Your task to perform on an android device: turn on notifications settings in the gmail app Image 0: 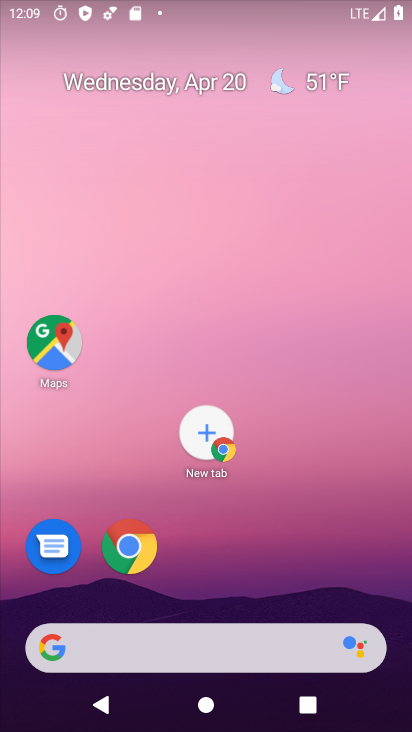
Step 0: drag from (217, 592) to (204, 41)
Your task to perform on an android device: turn on notifications settings in the gmail app Image 1: 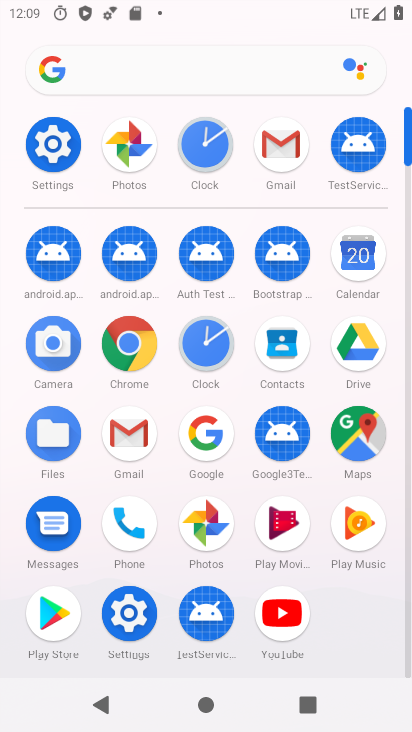
Step 1: click (129, 439)
Your task to perform on an android device: turn on notifications settings in the gmail app Image 2: 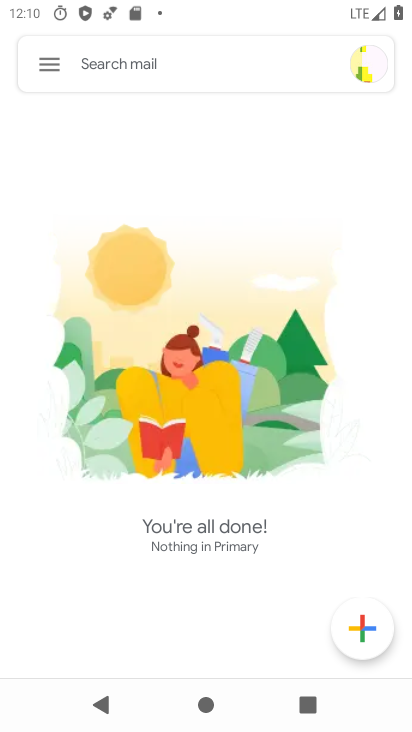
Step 2: click (54, 62)
Your task to perform on an android device: turn on notifications settings in the gmail app Image 3: 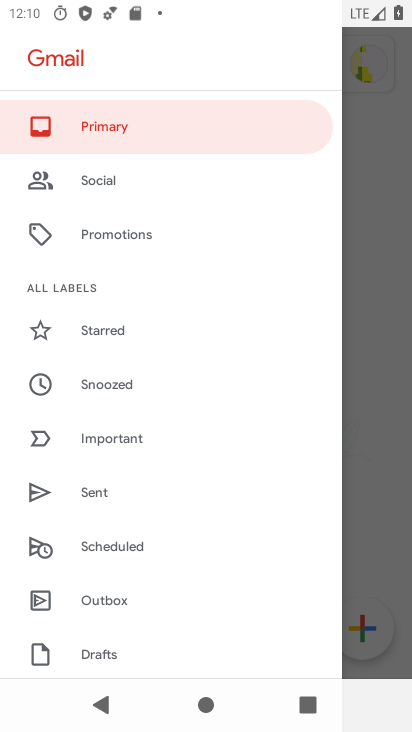
Step 3: drag from (137, 637) to (180, 146)
Your task to perform on an android device: turn on notifications settings in the gmail app Image 4: 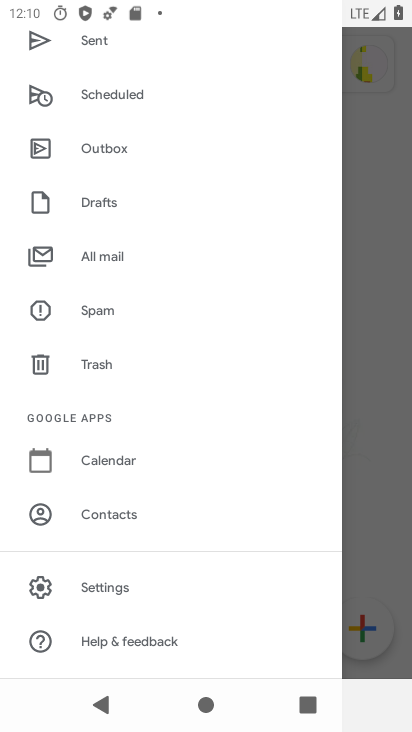
Step 4: click (103, 597)
Your task to perform on an android device: turn on notifications settings in the gmail app Image 5: 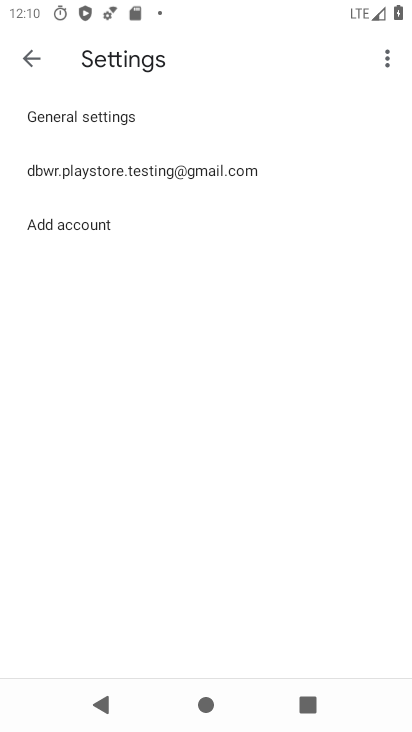
Step 5: click (161, 170)
Your task to perform on an android device: turn on notifications settings in the gmail app Image 6: 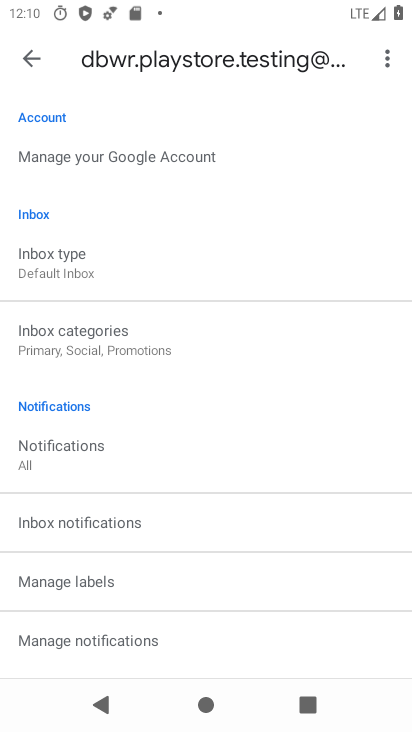
Step 6: click (79, 454)
Your task to perform on an android device: turn on notifications settings in the gmail app Image 7: 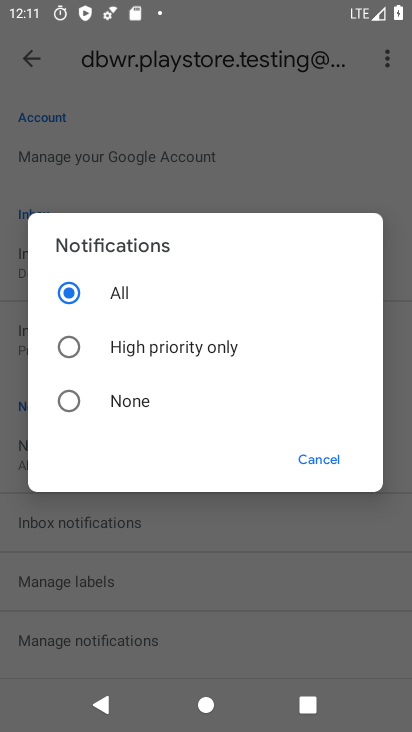
Step 7: task complete